Your task to perform on an android device: Clear the shopping cart on amazon. Add "razer naga" to the cart on amazon Image 0: 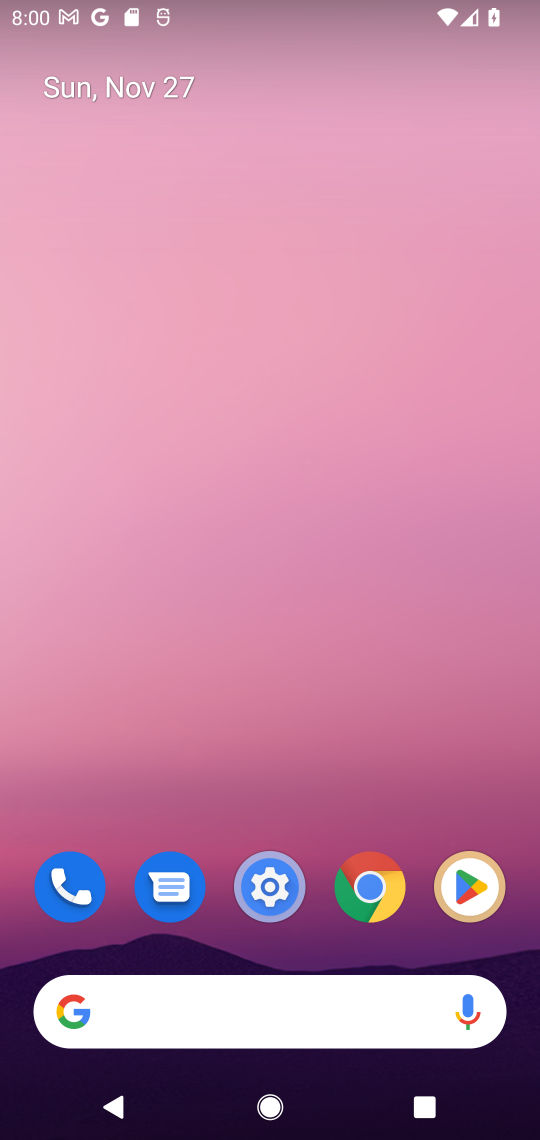
Step 0: press home button
Your task to perform on an android device: Clear the shopping cart on amazon. Add "razer naga" to the cart on amazon Image 1: 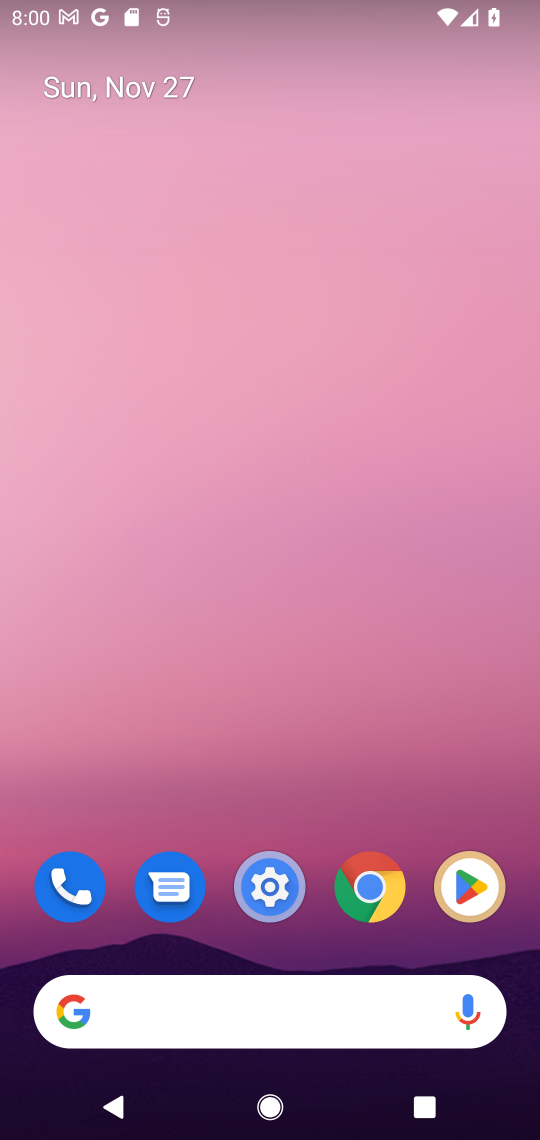
Step 1: click (312, 1031)
Your task to perform on an android device: Clear the shopping cart on amazon. Add "razer naga" to the cart on amazon Image 2: 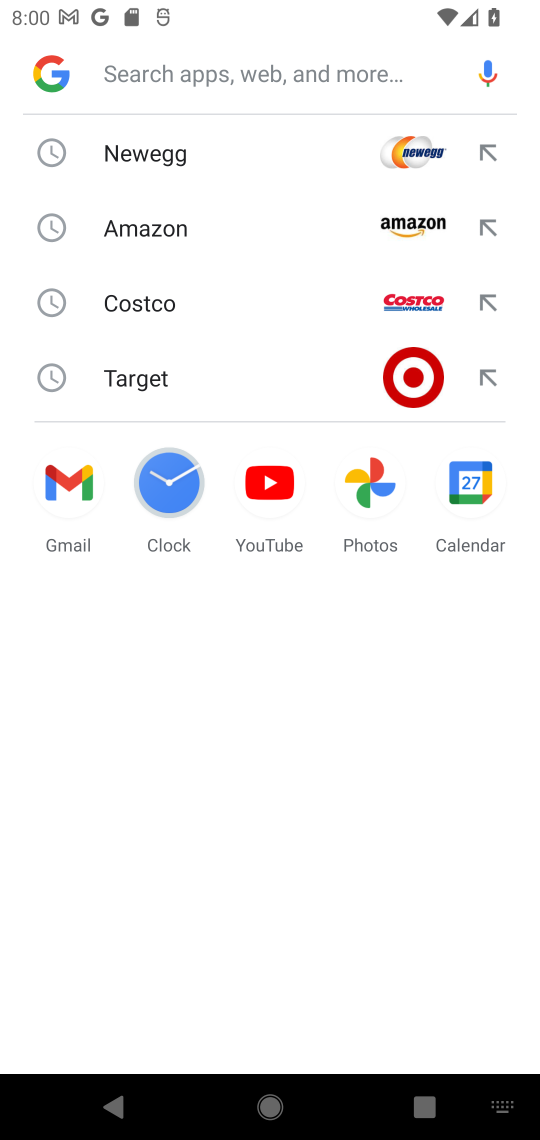
Step 2: type "amazon"
Your task to perform on an android device: Clear the shopping cart on amazon. Add "razer naga" to the cart on amazon Image 3: 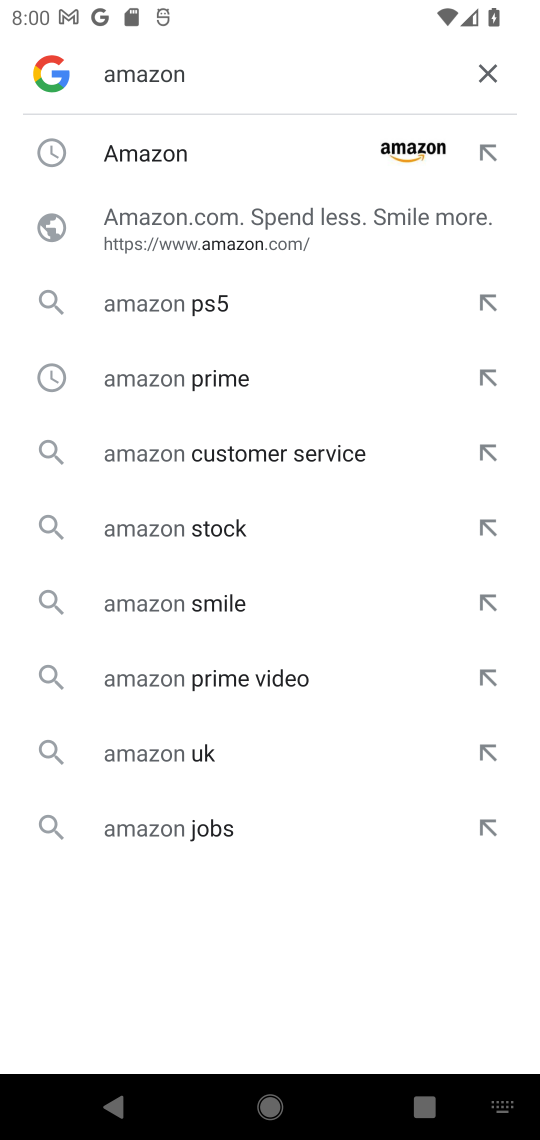
Step 3: click (249, 172)
Your task to perform on an android device: Clear the shopping cart on amazon. Add "razer naga" to the cart on amazon Image 4: 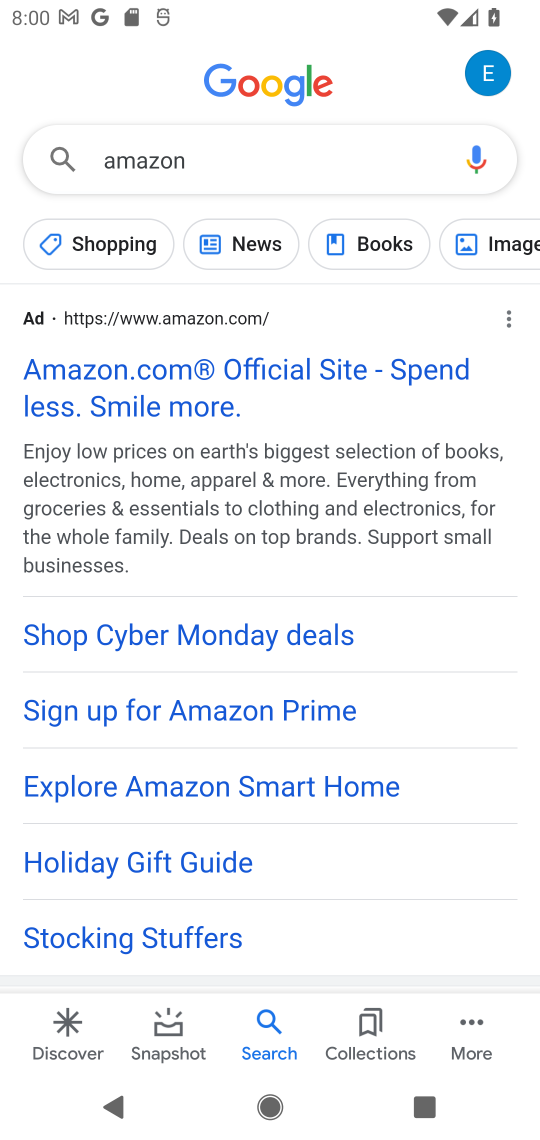
Step 4: click (87, 413)
Your task to perform on an android device: Clear the shopping cart on amazon. Add "razer naga" to the cart on amazon Image 5: 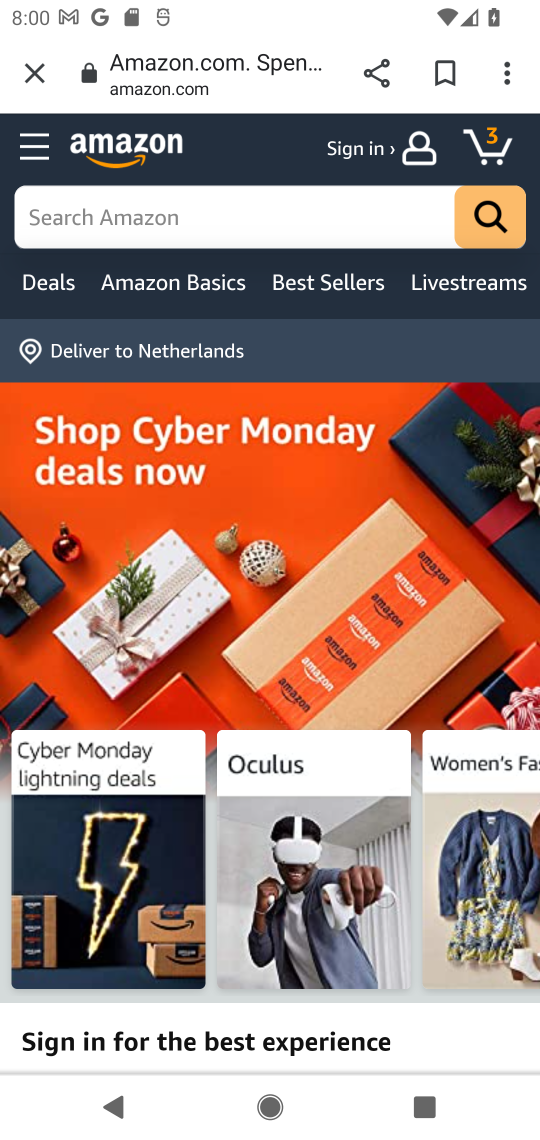
Step 5: click (104, 211)
Your task to perform on an android device: Clear the shopping cart on amazon. Add "razer naga" to the cart on amazon Image 6: 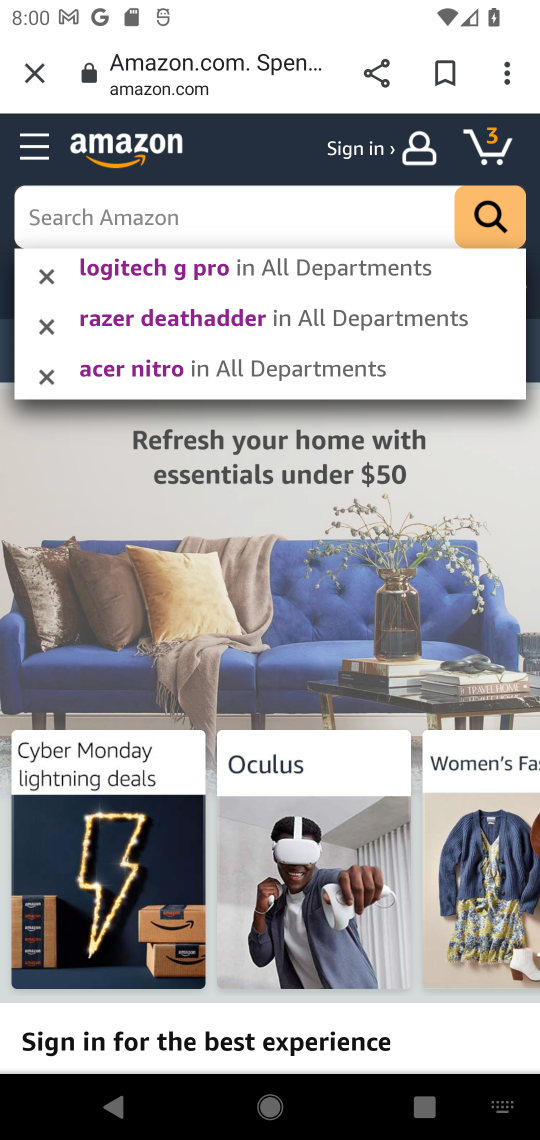
Step 6: type "razer naga"
Your task to perform on an android device: Clear the shopping cart on amazon. Add "razer naga" to the cart on amazon Image 7: 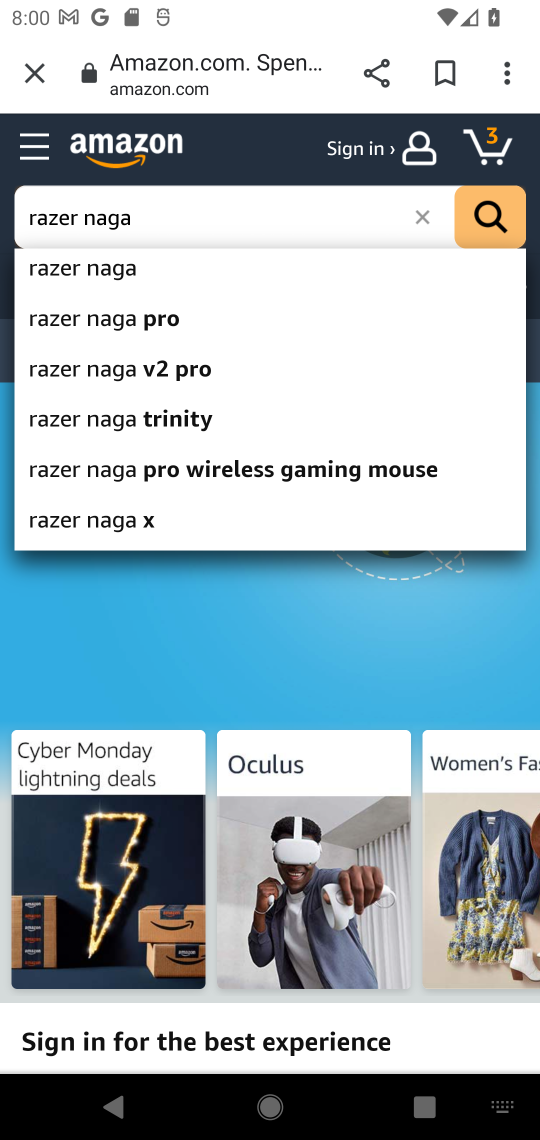
Step 7: click (115, 268)
Your task to perform on an android device: Clear the shopping cart on amazon. Add "razer naga" to the cart on amazon Image 8: 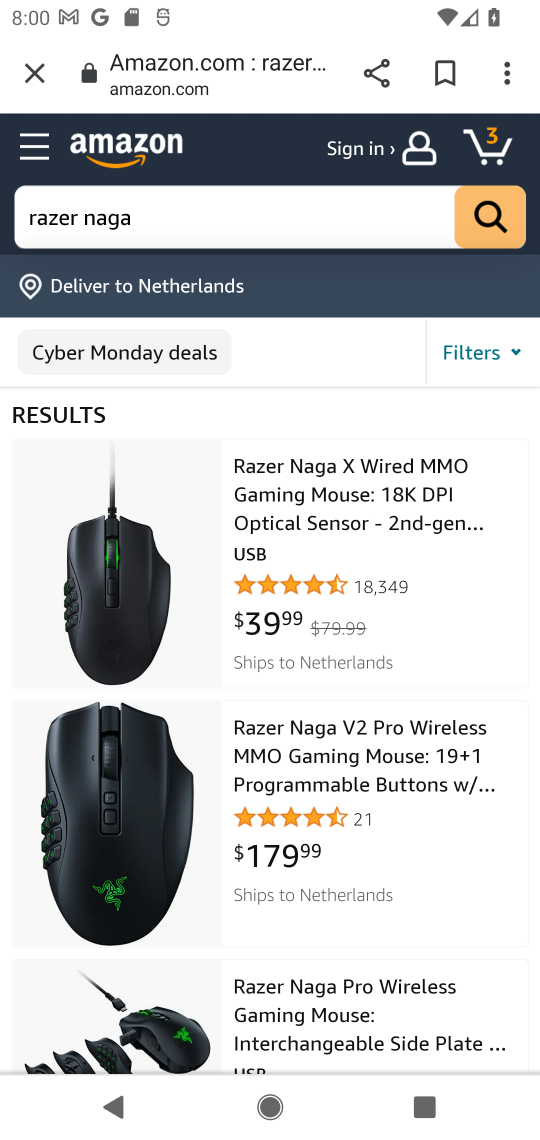
Step 8: click (313, 536)
Your task to perform on an android device: Clear the shopping cart on amazon. Add "razer naga" to the cart on amazon Image 9: 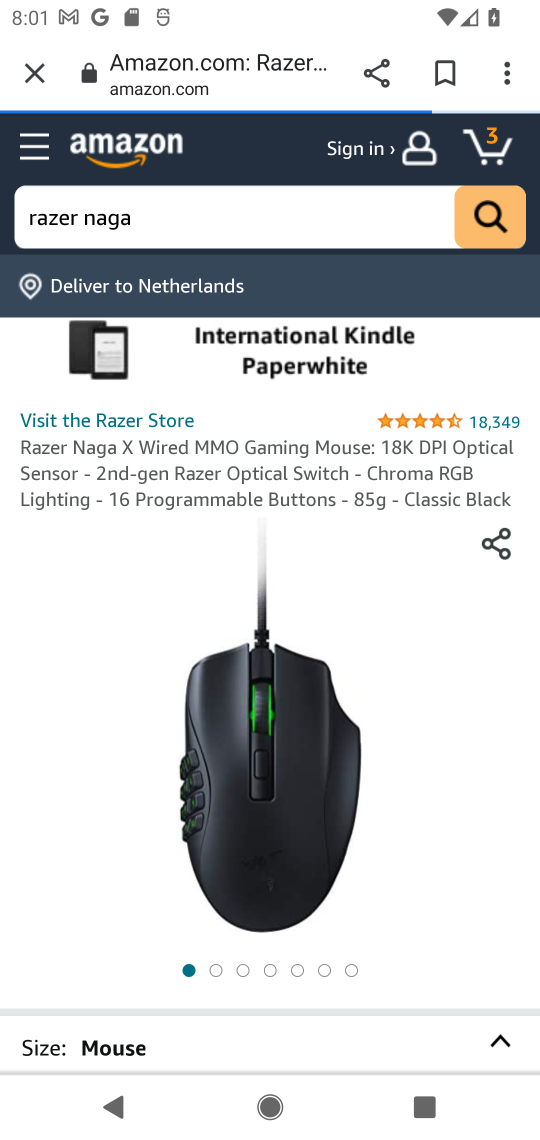
Step 9: drag from (202, 719) to (307, 145)
Your task to perform on an android device: Clear the shopping cart on amazon. Add "razer naga" to the cart on amazon Image 10: 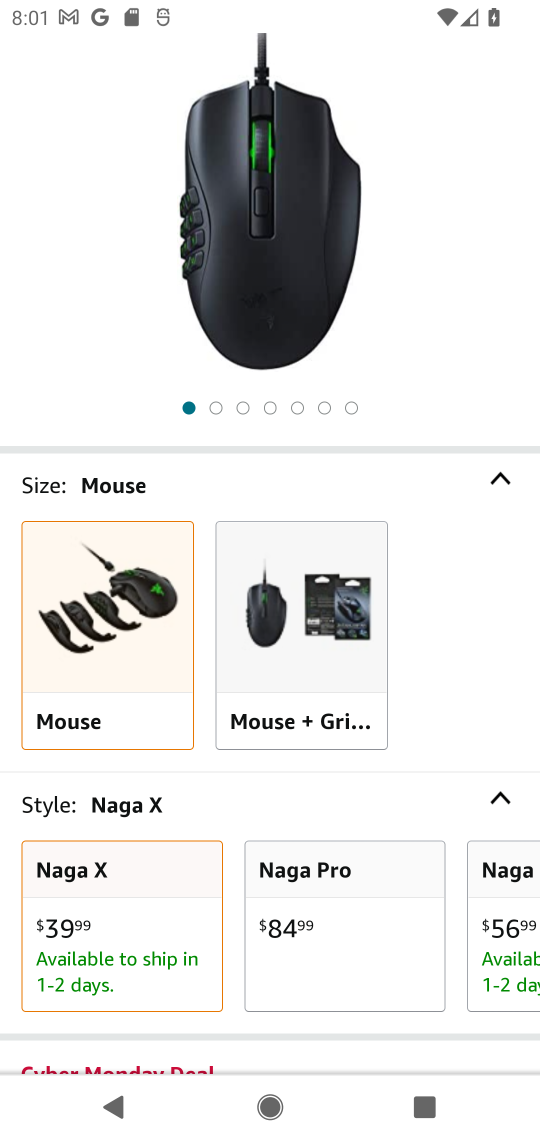
Step 10: drag from (364, 816) to (517, 307)
Your task to perform on an android device: Clear the shopping cart on amazon. Add "razer naga" to the cart on amazon Image 11: 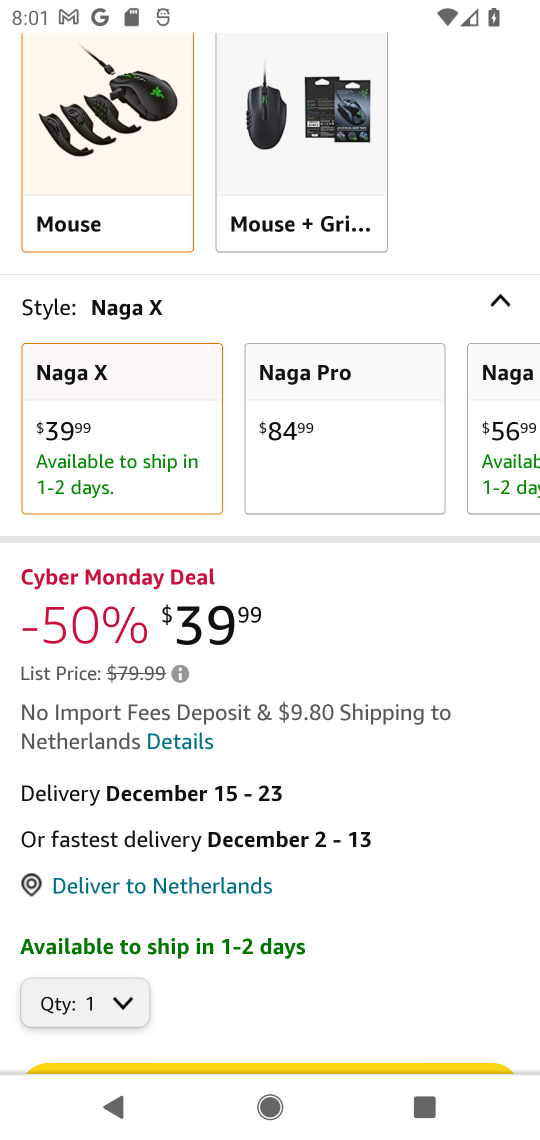
Step 11: click (293, 1059)
Your task to perform on an android device: Clear the shopping cart on amazon. Add "razer naga" to the cart on amazon Image 12: 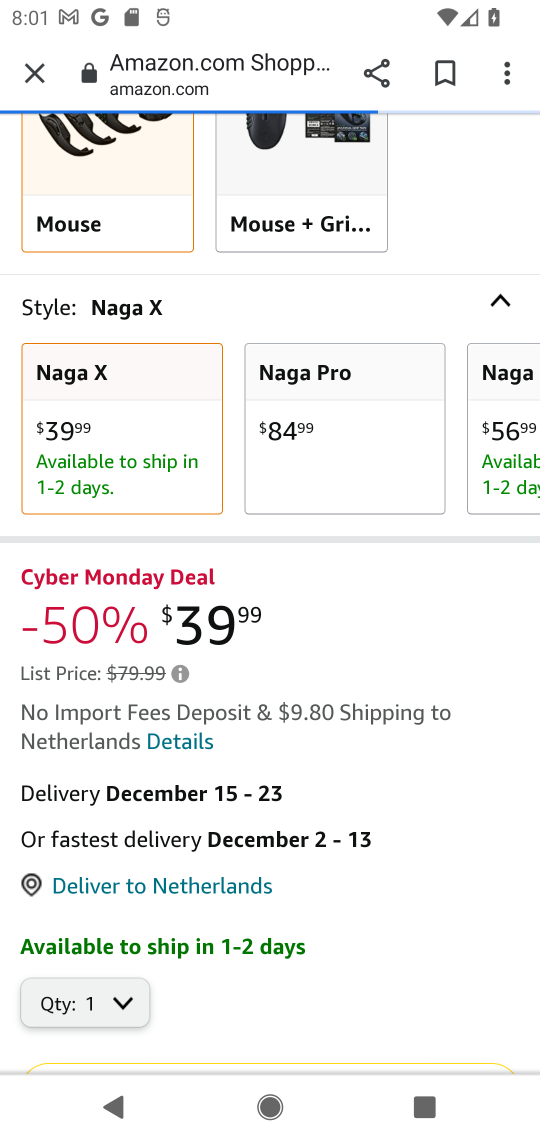
Step 12: task complete